Your task to perform on an android device: Clear the cart on bestbuy. Search for "sony triple a" on bestbuy, select the first entry, and add it to the cart. Image 0: 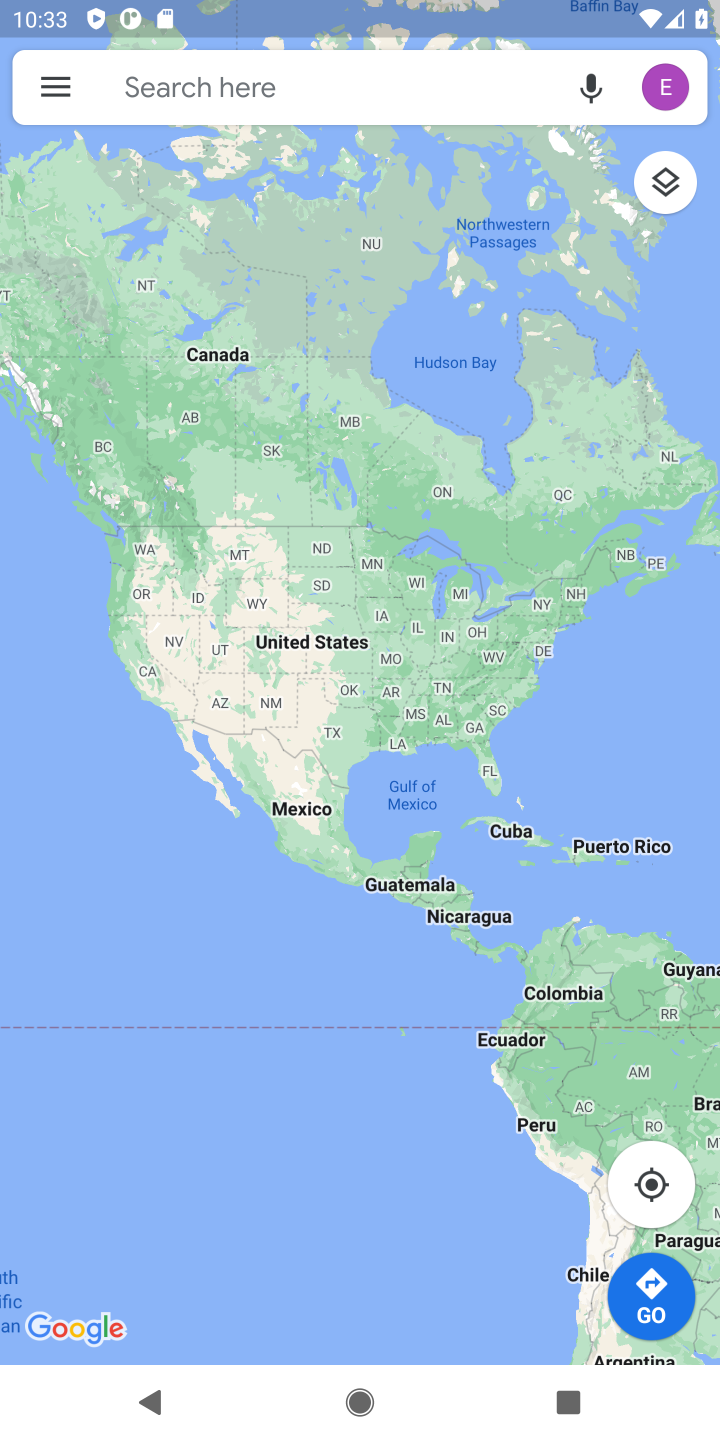
Step 0: press home button
Your task to perform on an android device: Clear the cart on bestbuy. Search for "sony triple a" on bestbuy, select the first entry, and add it to the cart. Image 1: 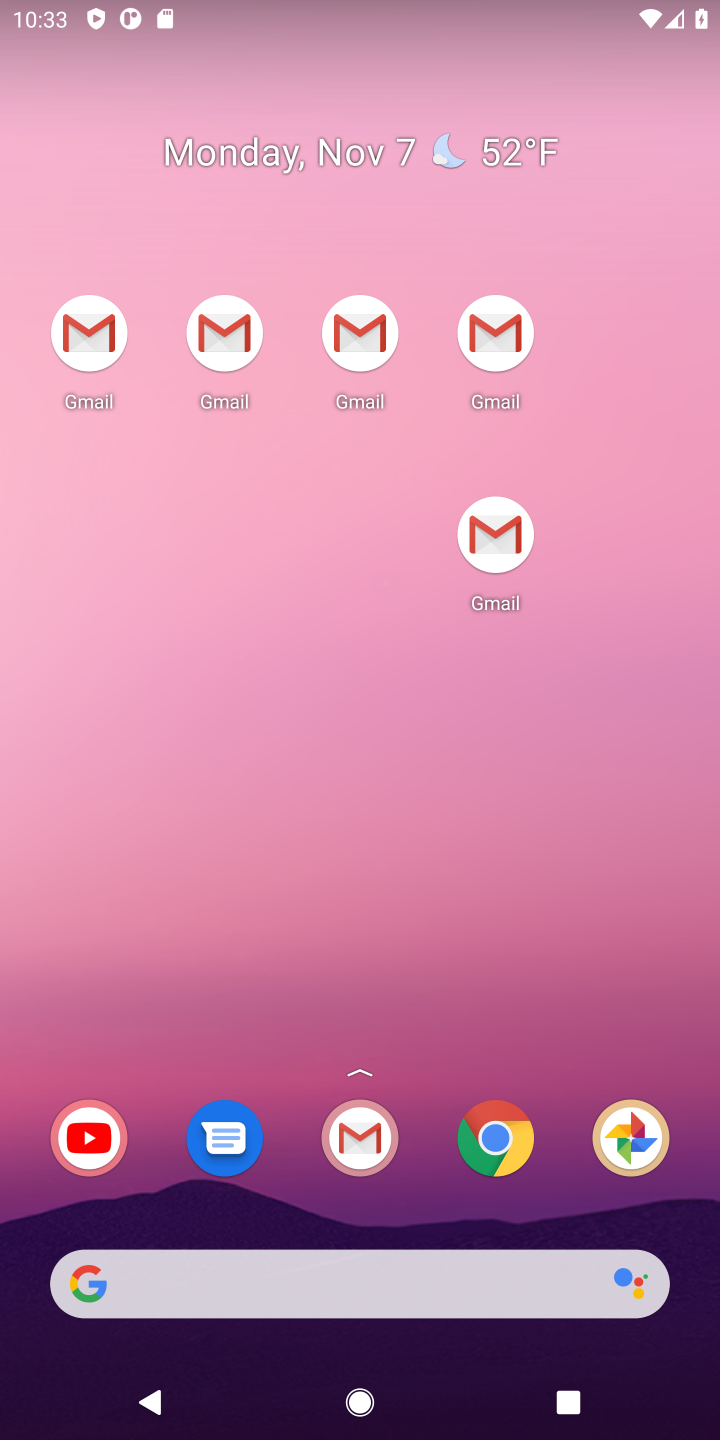
Step 1: drag from (385, 1219) to (523, 242)
Your task to perform on an android device: Clear the cart on bestbuy. Search for "sony triple a" on bestbuy, select the first entry, and add it to the cart. Image 2: 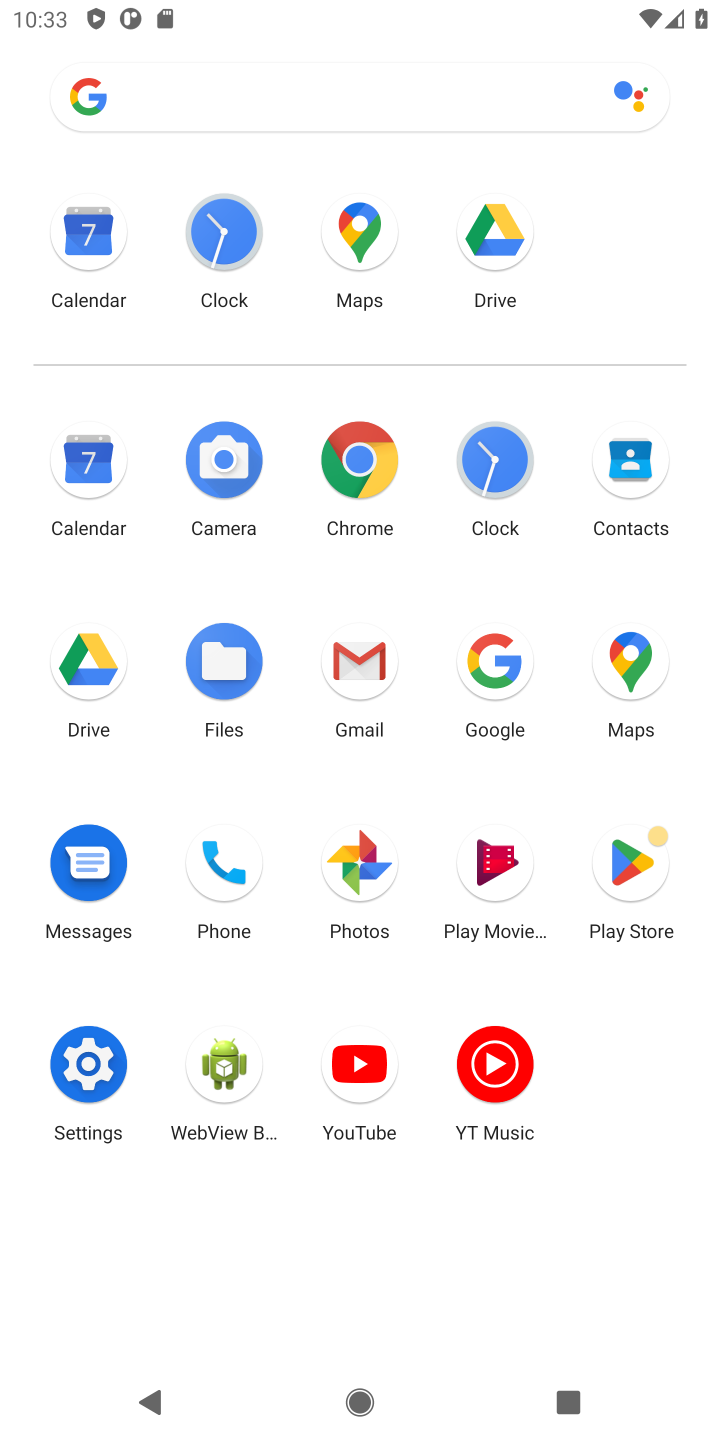
Step 2: click (505, 665)
Your task to perform on an android device: Clear the cart on bestbuy. Search for "sony triple a" on bestbuy, select the first entry, and add it to the cart. Image 3: 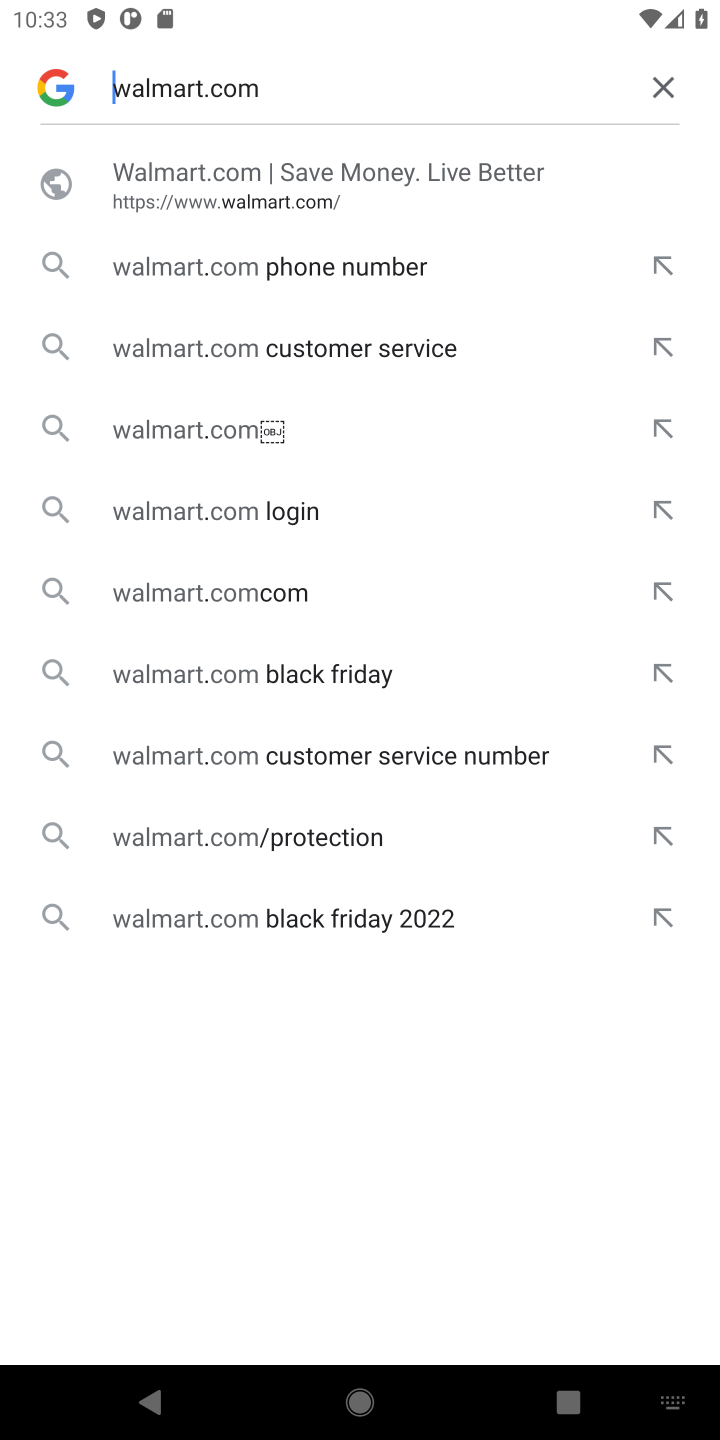
Step 3: click (659, 95)
Your task to perform on an android device: Clear the cart on bestbuy. Search for "sony triple a" on bestbuy, select the first entry, and add it to the cart. Image 4: 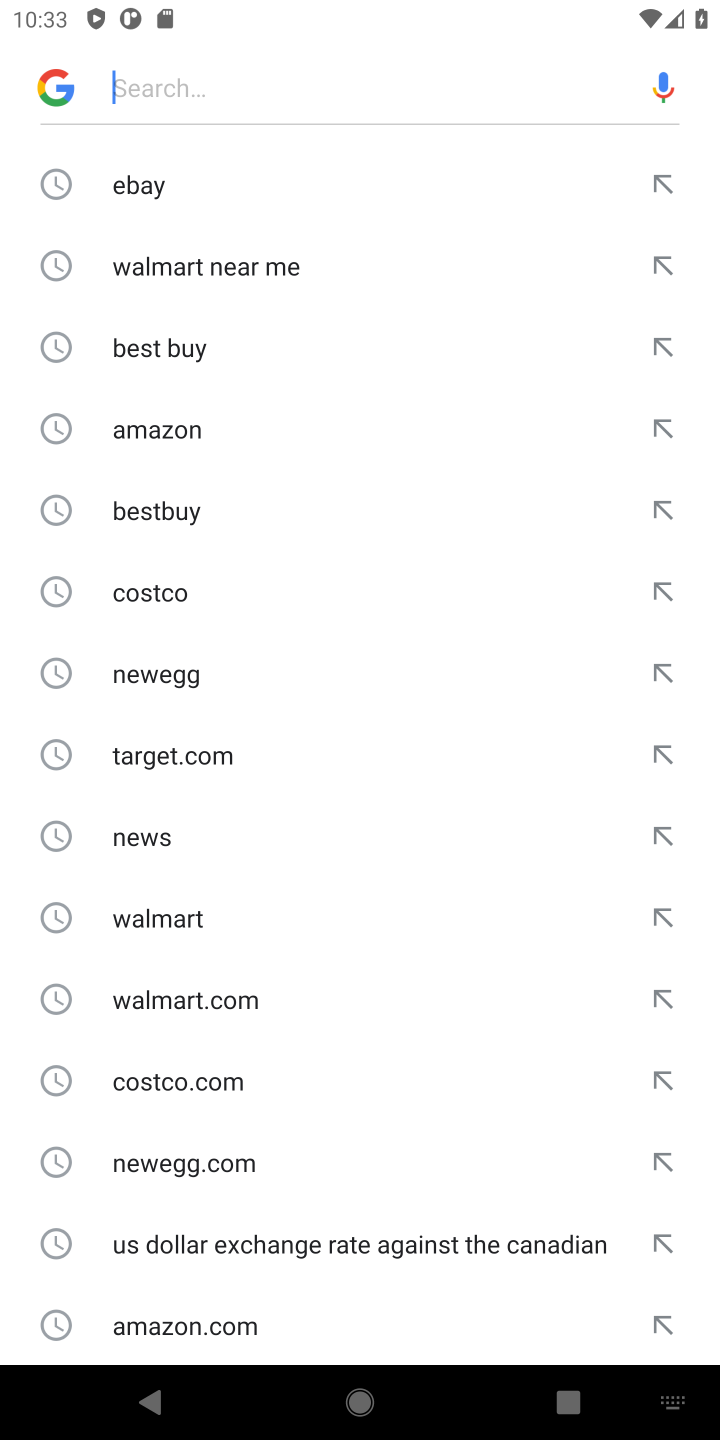
Step 4: type "bestbuy"
Your task to perform on an android device: Clear the cart on bestbuy. Search for "sony triple a" on bestbuy, select the first entry, and add it to the cart. Image 5: 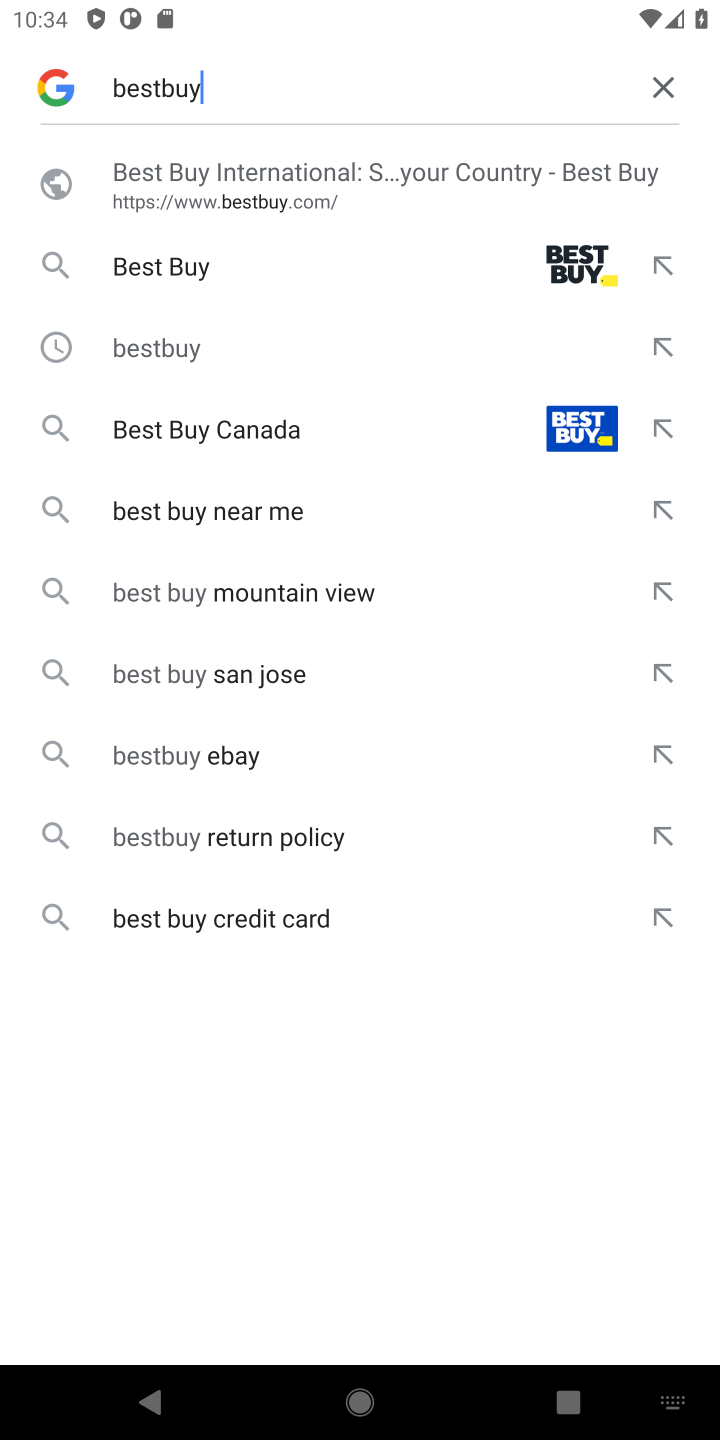
Step 5: click (329, 201)
Your task to perform on an android device: Clear the cart on bestbuy. Search for "sony triple a" on bestbuy, select the first entry, and add it to the cart. Image 6: 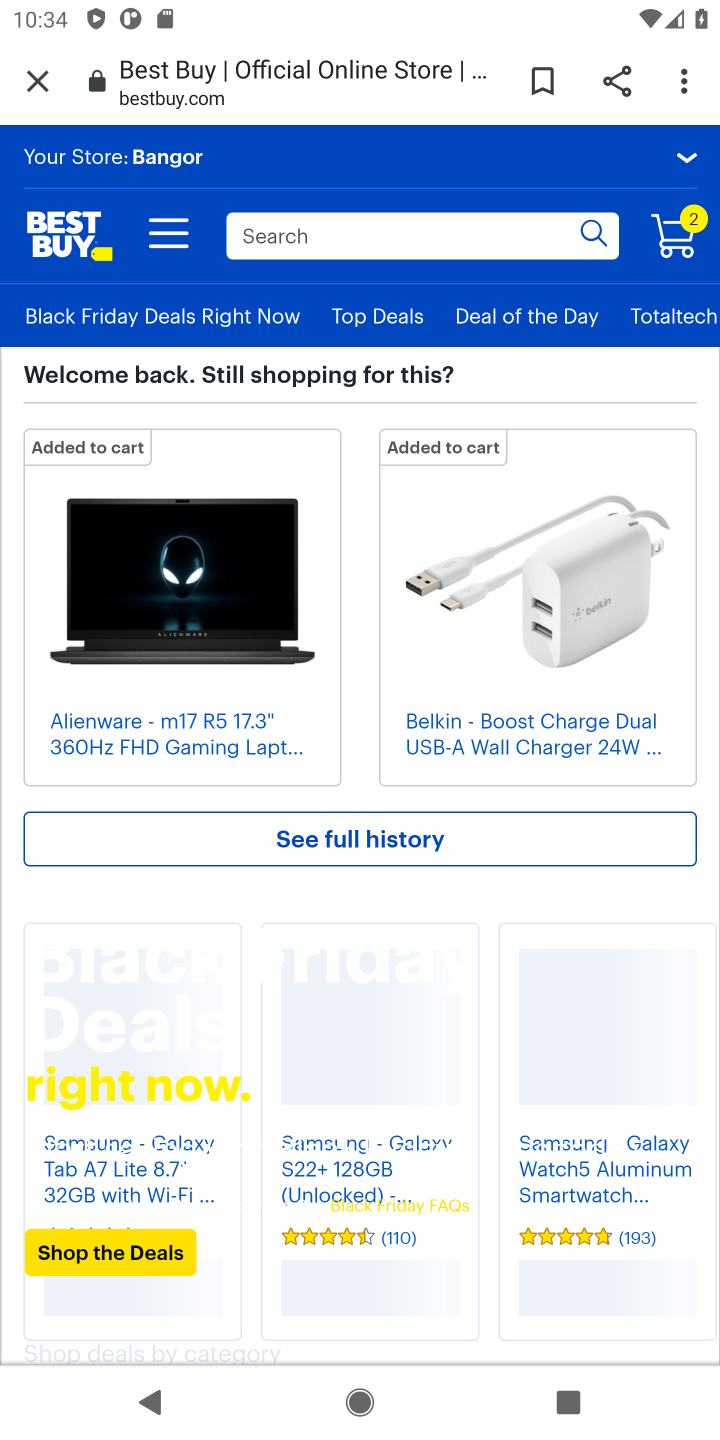
Step 6: click (324, 243)
Your task to perform on an android device: Clear the cart on bestbuy. Search for "sony triple a" on bestbuy, select the first entry, and add it to the cart. Image 7: 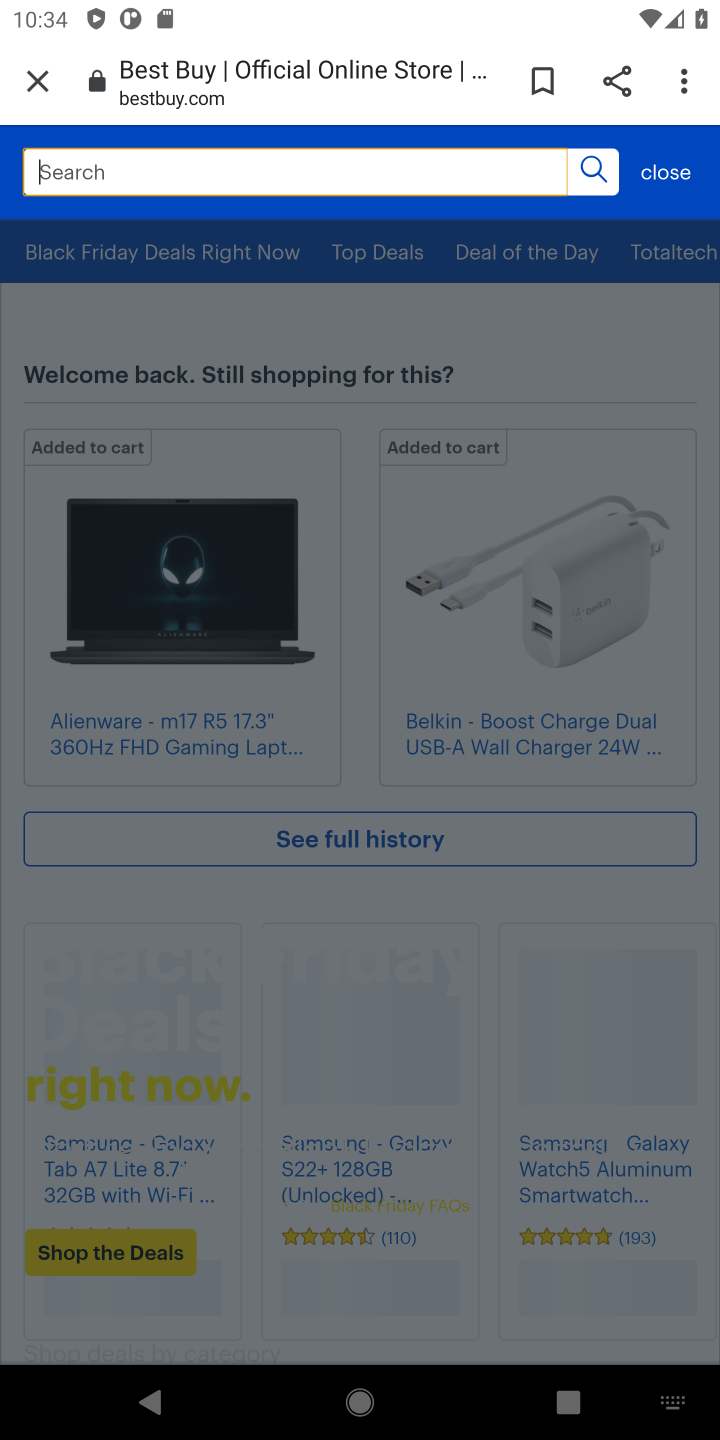
Step 7: type "sony triple a"
Your task to perform on an android device: Clear the cart on bestbuy. Search for "sony triple a" on bestbuy, select the first entry, and add it to the cart. Image 8: 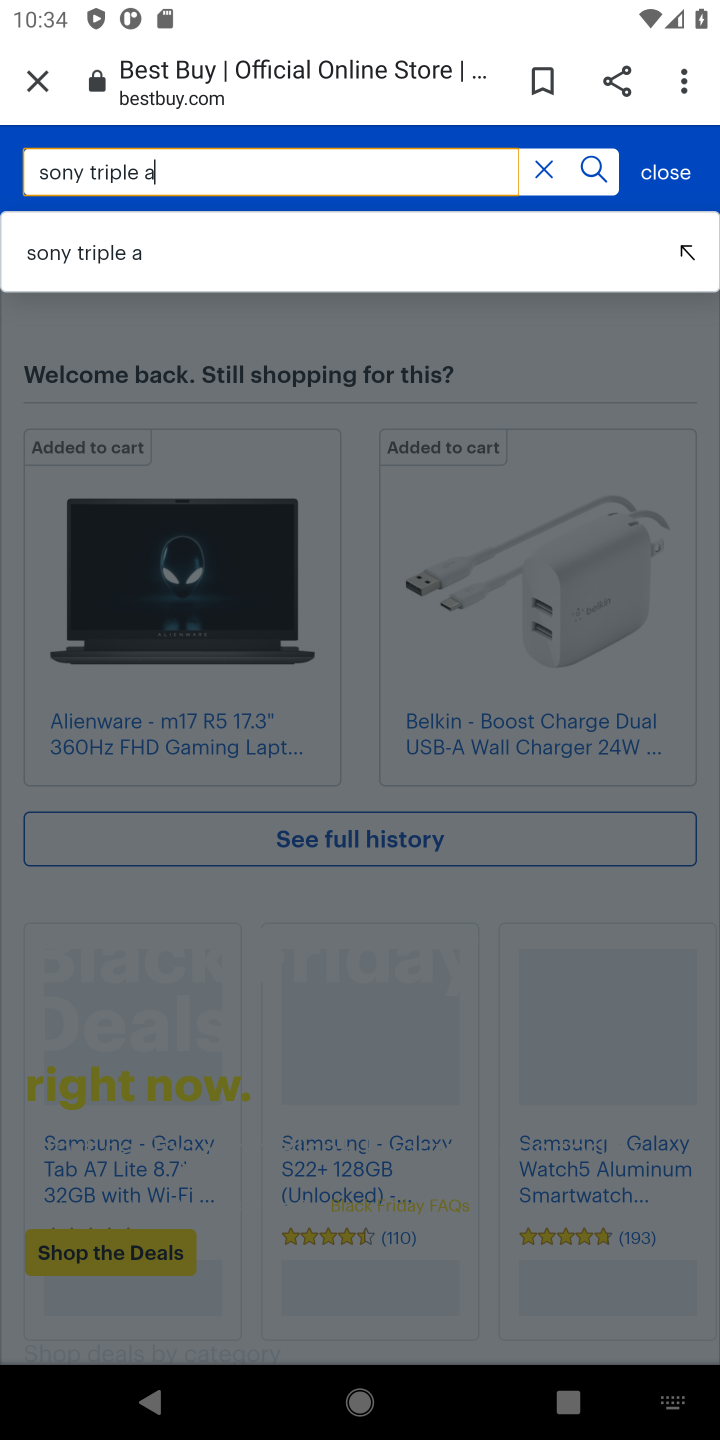
Step 8: click (81, 239)
Your task to perform on an android device: Clear the cart on bestbuy. Search for "sony triple a" on bestbuy, select the first entry, and add it to the cart. Image 9: 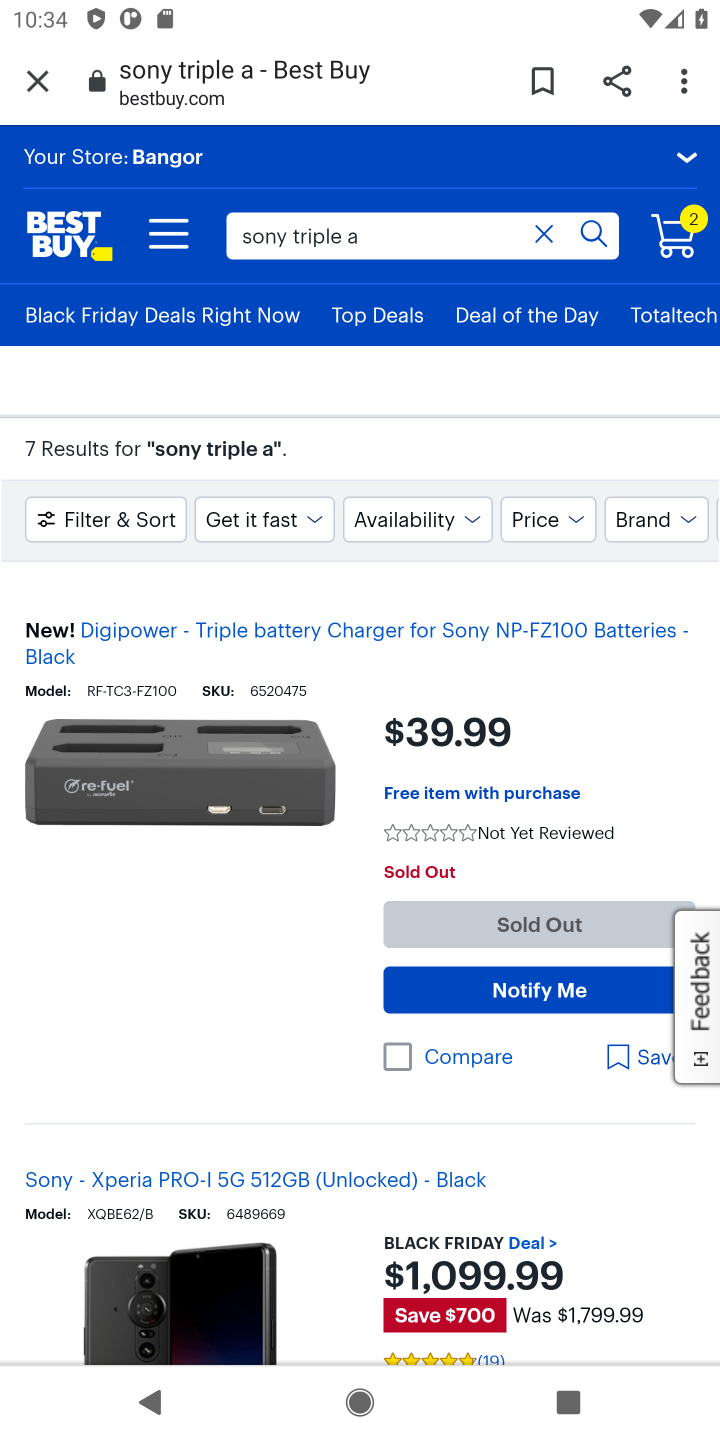
Step 9: task complete